Your task to perform on an android device: Search for Italian restaurants on Maps Image 0: 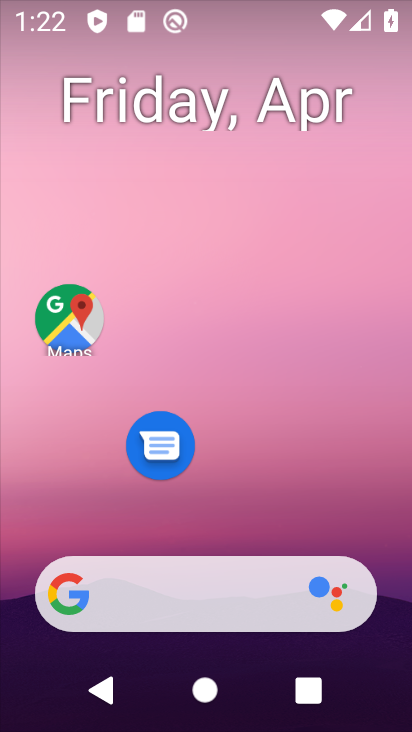
Step 0: drag from (239, 519) to (264, 95)
Your task to perform on an android device: Search for Italian restaurants on Maps Image 1: 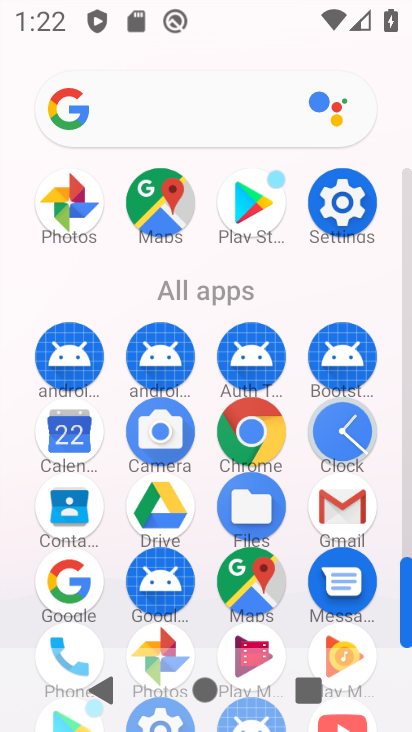
Step 1: click (145, 194)
Your task to perform on an android device: Search for Italian restaurants on Maps Image 2: 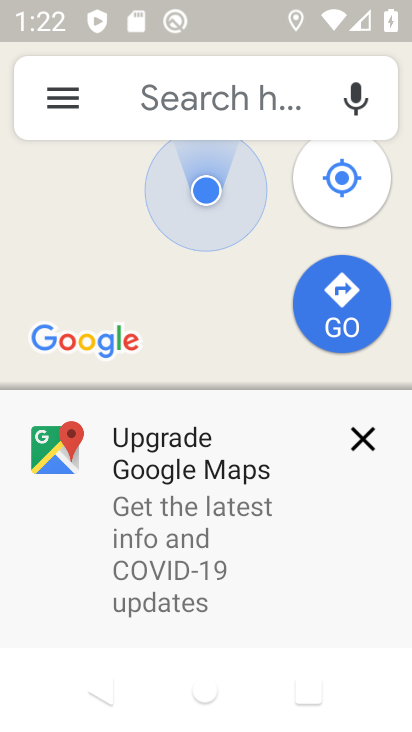
Step 2: click (183, 107)
Your task to perform on an android device: Search for Italian restaurants on Maps Image 3: 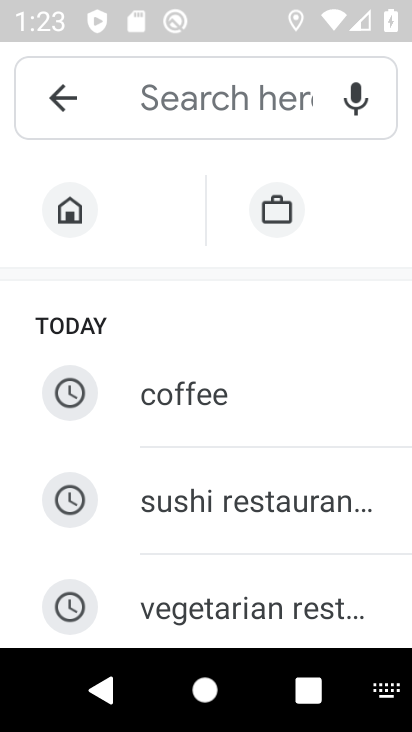
Step 3: type "italian restaurants"
Your task to perform on an android device: Search for Italian restaurants on Maps Image 4: 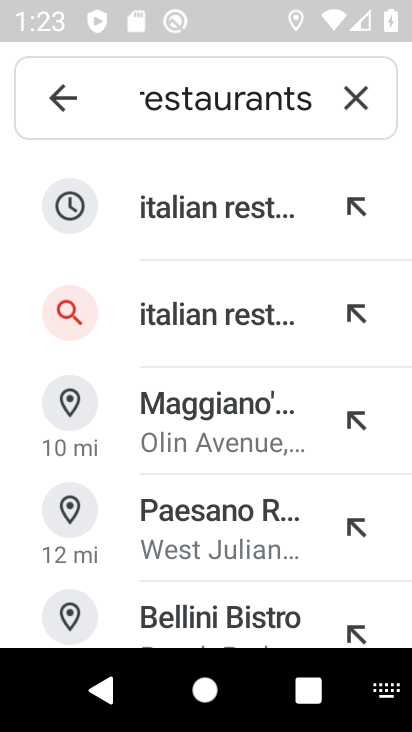
Step 4: click (222, 226)
Your task to perform on an android device: Search for Italian restaurants on Maps Image 5: 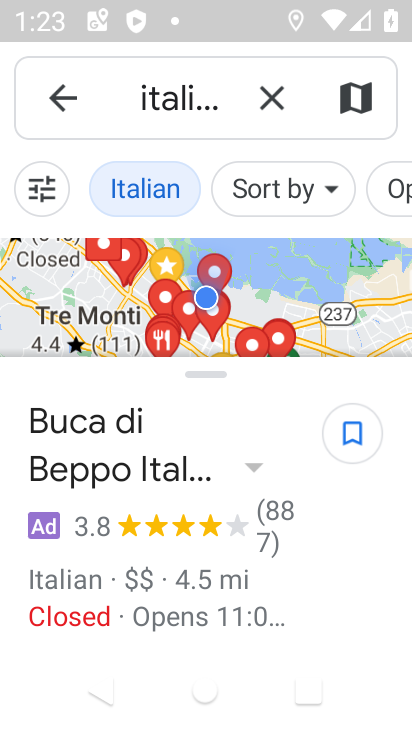
Step 5: task complete